Your task to perform on an android device: Show me the alarms in the clock app Image 0: 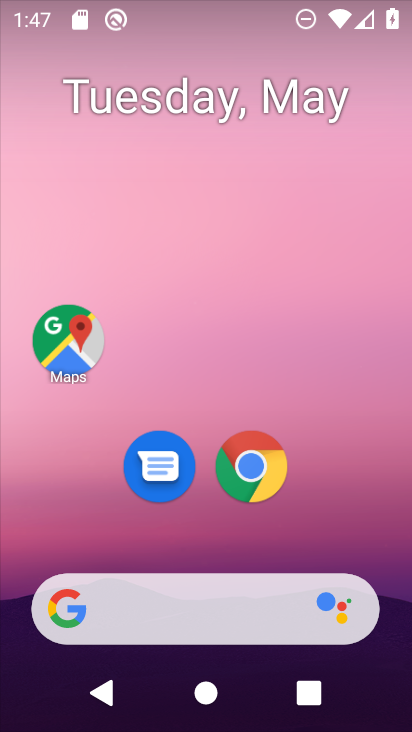
Step 0: drag from (167, 575) to (267, 25)
Your task to perform on an android device: Show me the alarms in the clock app Image 1: 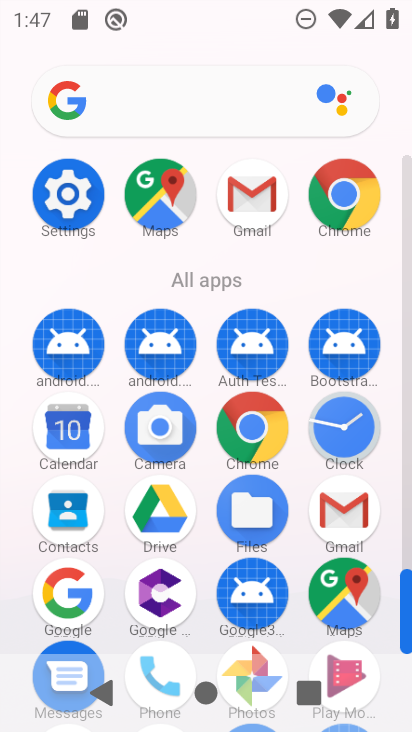
Step 1: click (347, 432)
Your task to perform on an android device: Show me the alarms in the clock app Image 2: 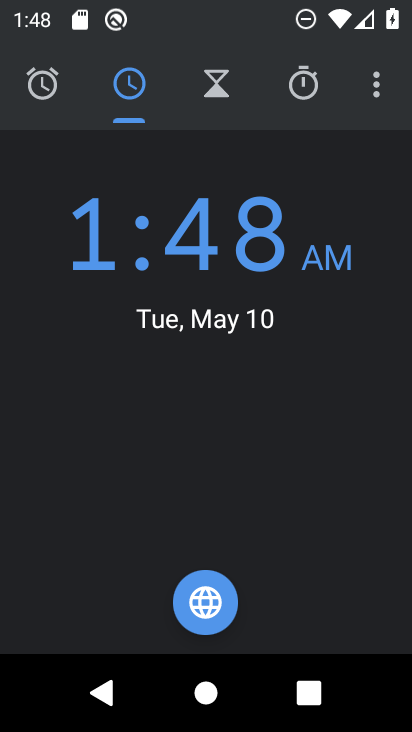
Step 2: click (46, 111)
Your task to perform on an android device: Show me the alarms in the clock app Image 3: 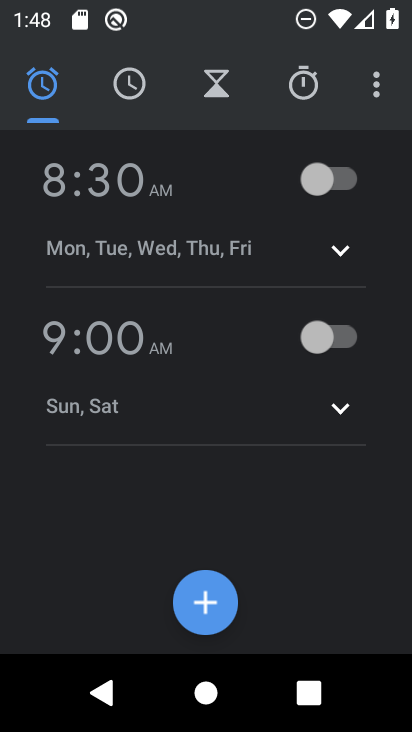
Step 3: task complete